Your task to perform on an android device: Open location settings Image 0: 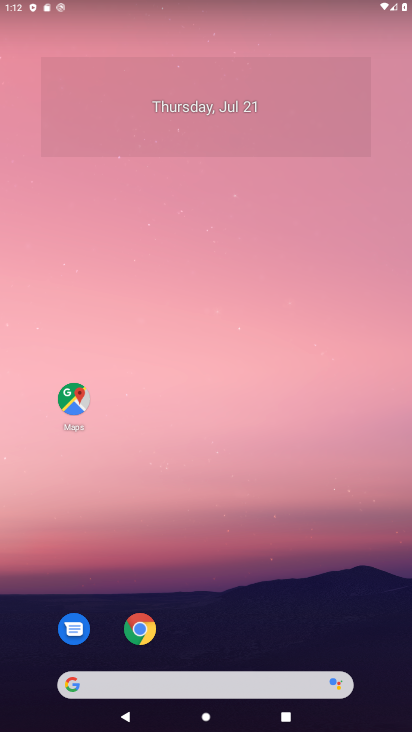
Step 0: drag from (33, 695) to (255, 18)
Your task to perform on an android device: Open location settings Image 1: 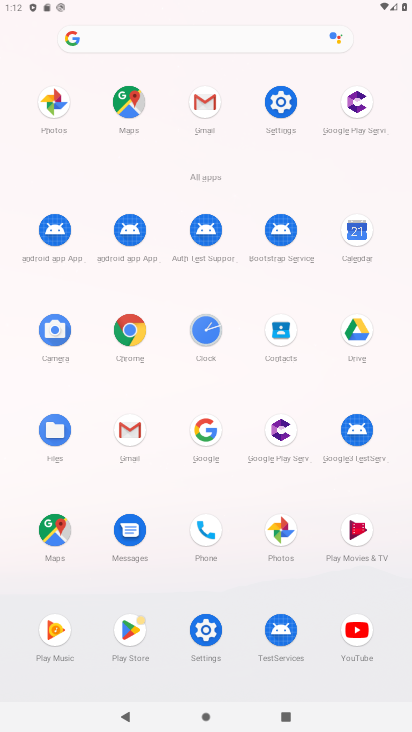
Step 1: click (204, 632)
Your task to perform on an android device: Open location settings Image 2: 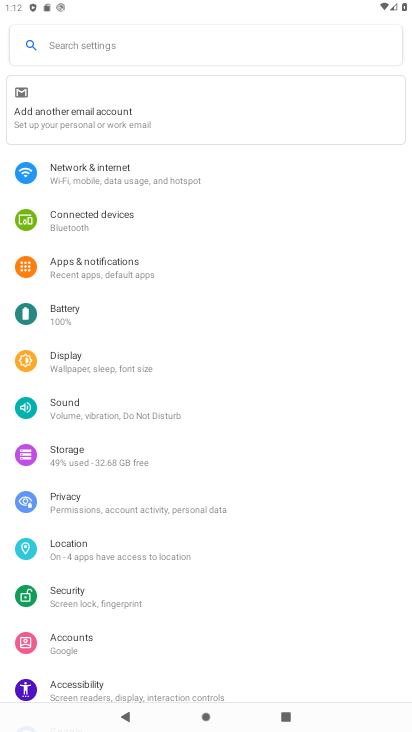
Step 2: click (112, 554)
Your task to perform on an android device: Open location settings Image 3: 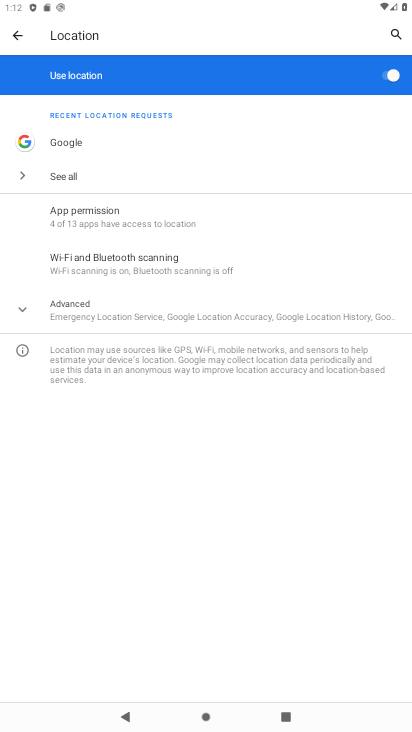
Step 3: click (100, 312)
Your task to perform on an android device: Open location settings Image 4: 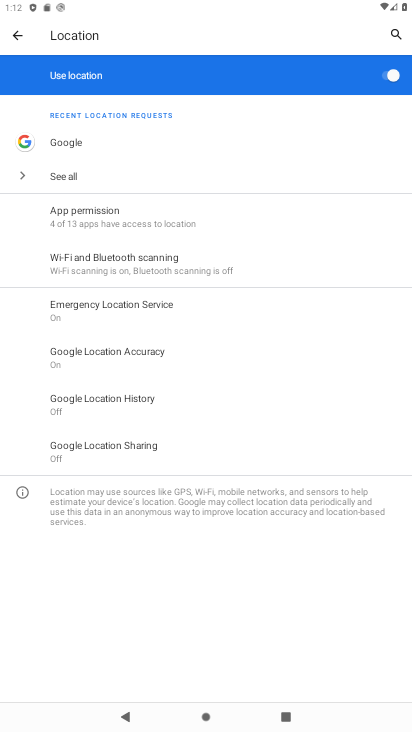
Step 4: task complete